Your task to perform on an android device: Show me the alarms in the clock app Image 0: 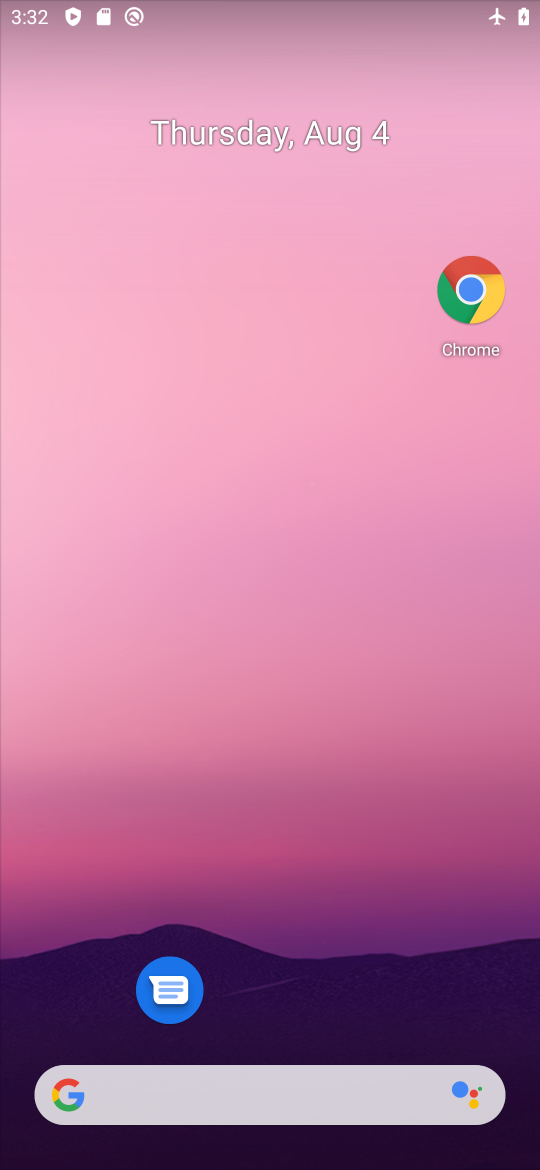
Step 0: drag from (346, 1042) to (225, 142)
Your task to perform on an android device: Show me the alarms in the clock app Image 1: 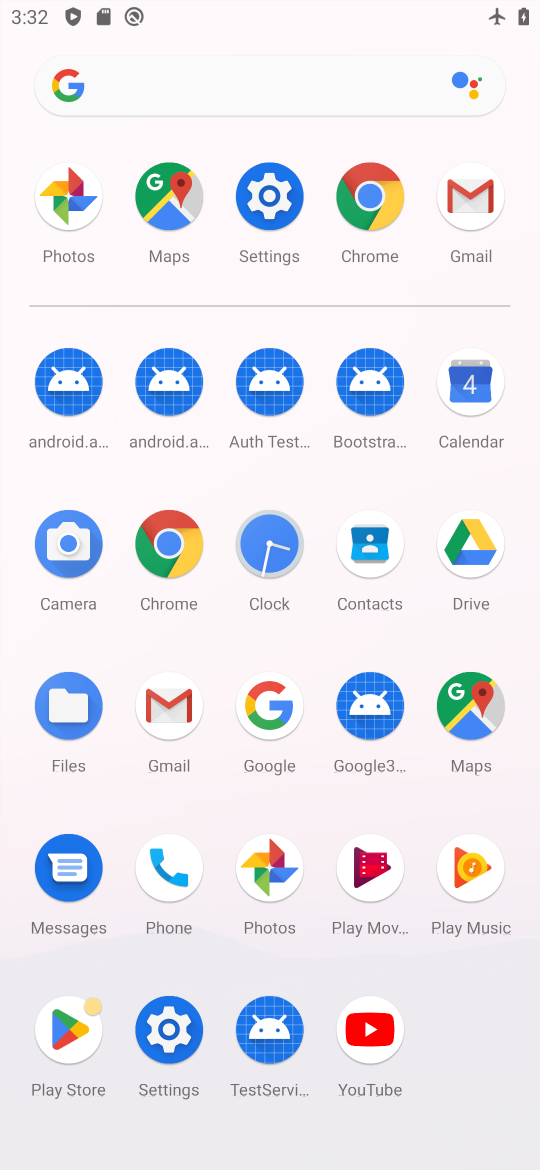
Step 1: click (261, 532)
Your task to perform on an android device: Show me the alarms in the clock app Image 2: 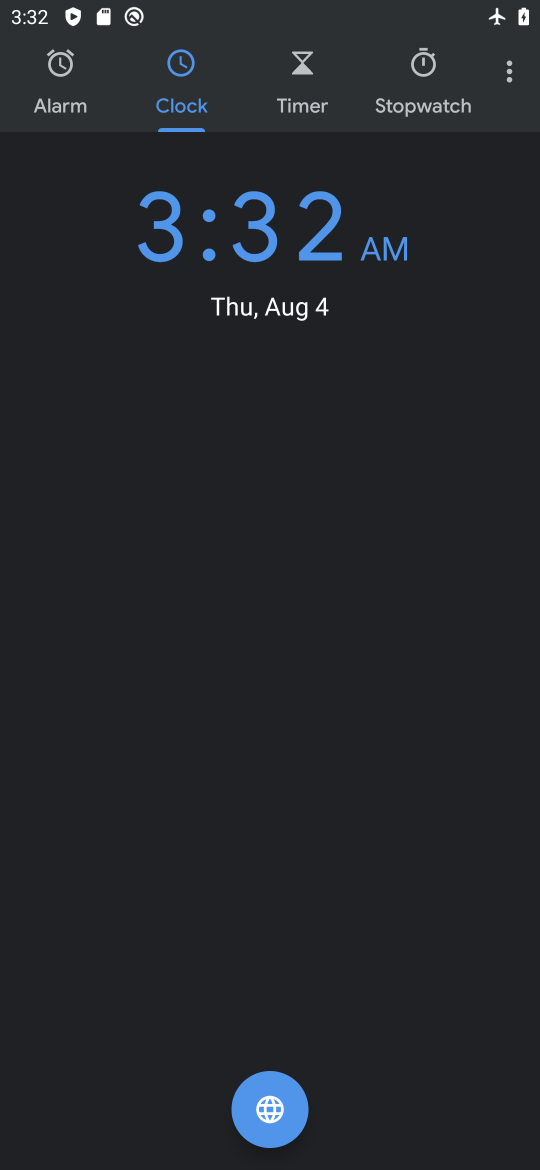
Step 2: click (515, 84)
Your task to perform on an android device: Show me the alarms in the clock app Image 3: 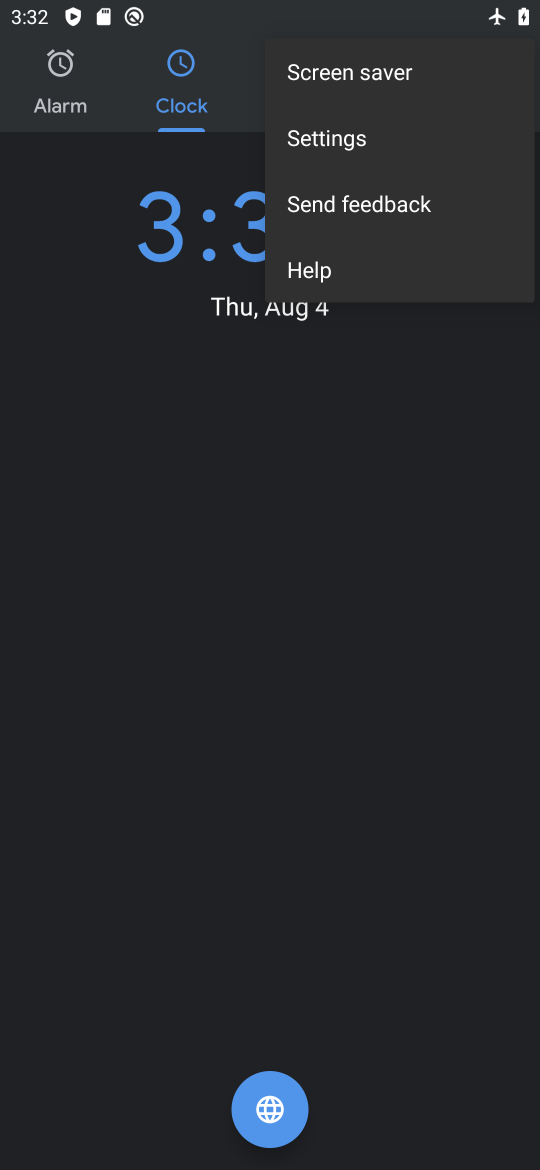
Step 3: click (379, 156)
Your task to perform on an android device: Show me the alarms in the clock app Image 4: 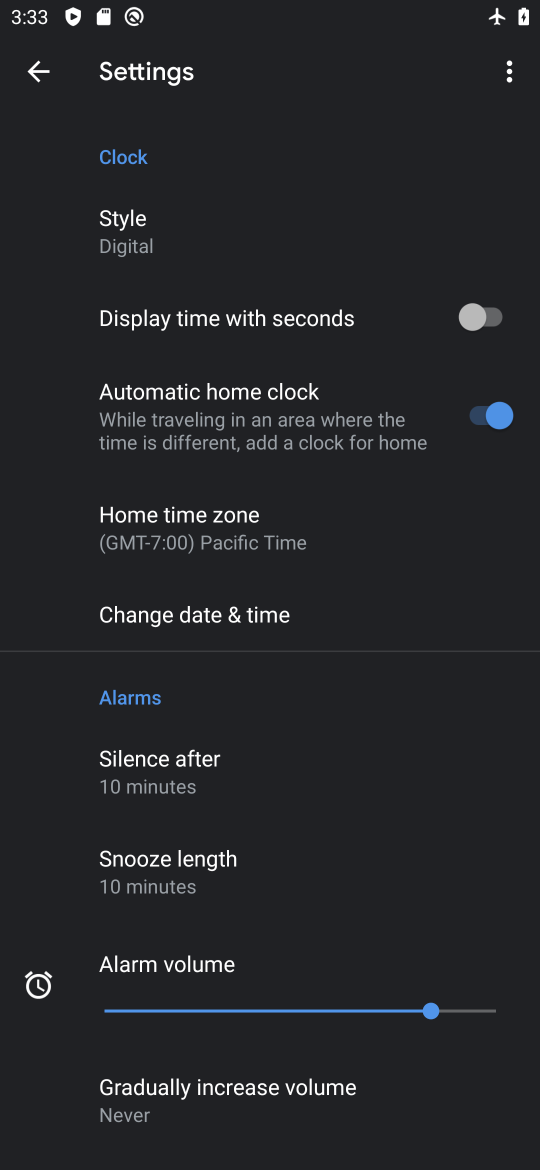
Step 4: task complete